Your task to perform on an android device: Go to wifi settings Image 0: 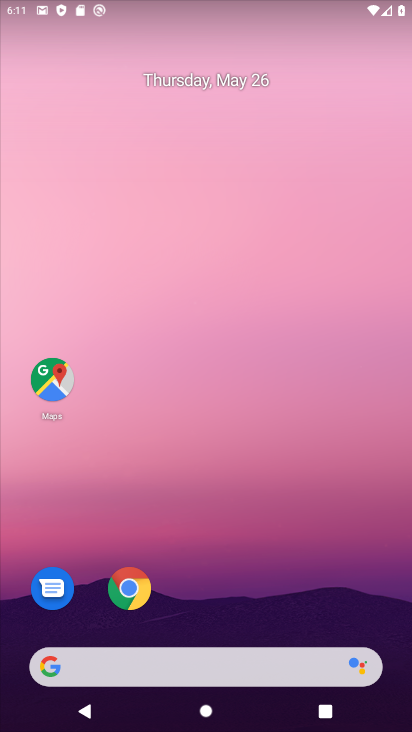
Step 0: drag from (363, 625) to (223, 69)
Your task to perform on an android device: Go to wifi settings Image 1: 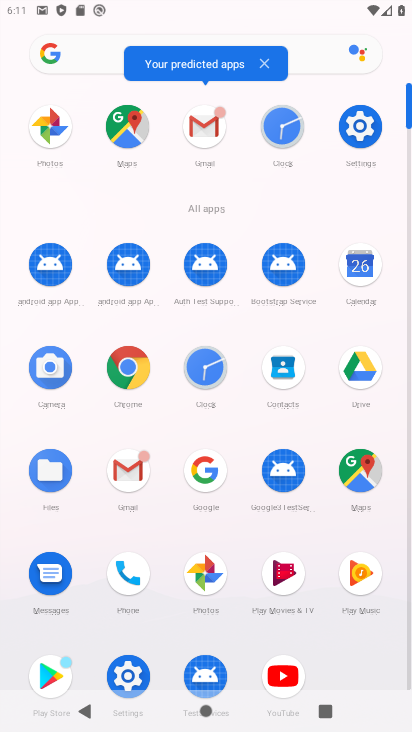
Step 1: click (350, 135)
Your task to perform on an android device: Go to wifi settings Image 2: 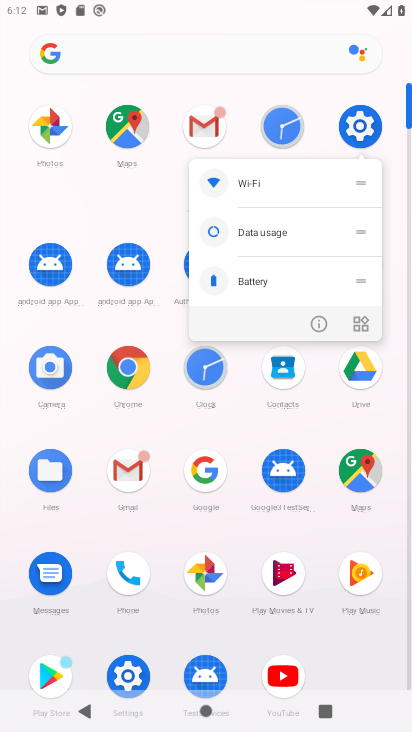
Step 2: click (350, 135)
Your task to perform on an android device: Go to wifi settings Image 3: 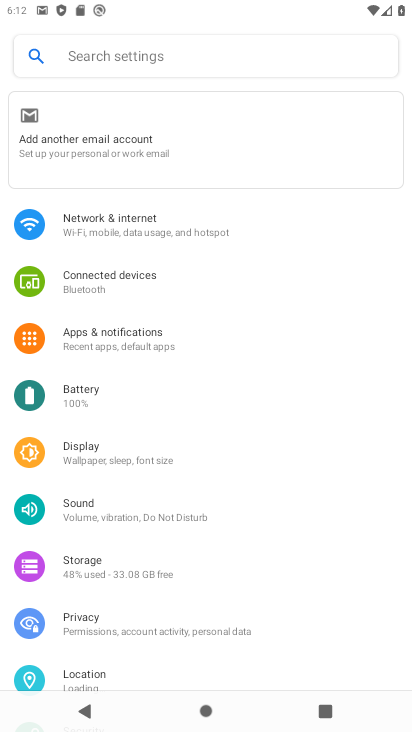
Step 3: click (113, 218)
Your task to perform on an android device: Go to wifi settings Image 4: 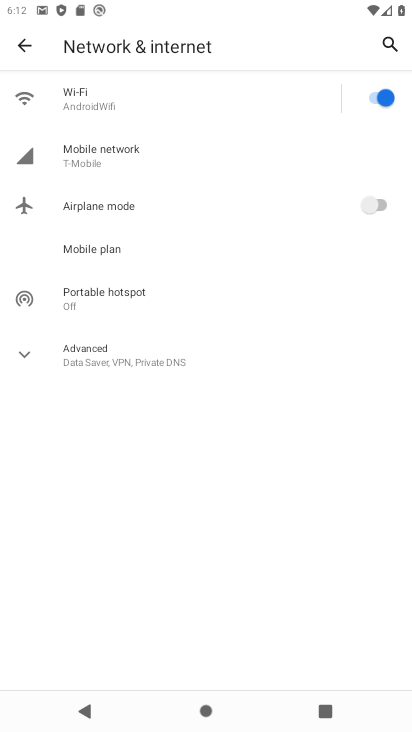
Step 4: click (113, 100)
Your task to perform on an android device: Go to wifi settings Image 5: 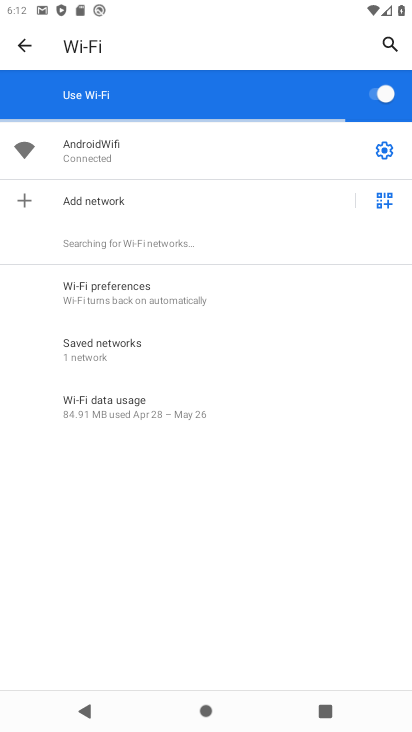
Step 5: task complete